Your task to perform on an android device: change text size in settings app Image 0: 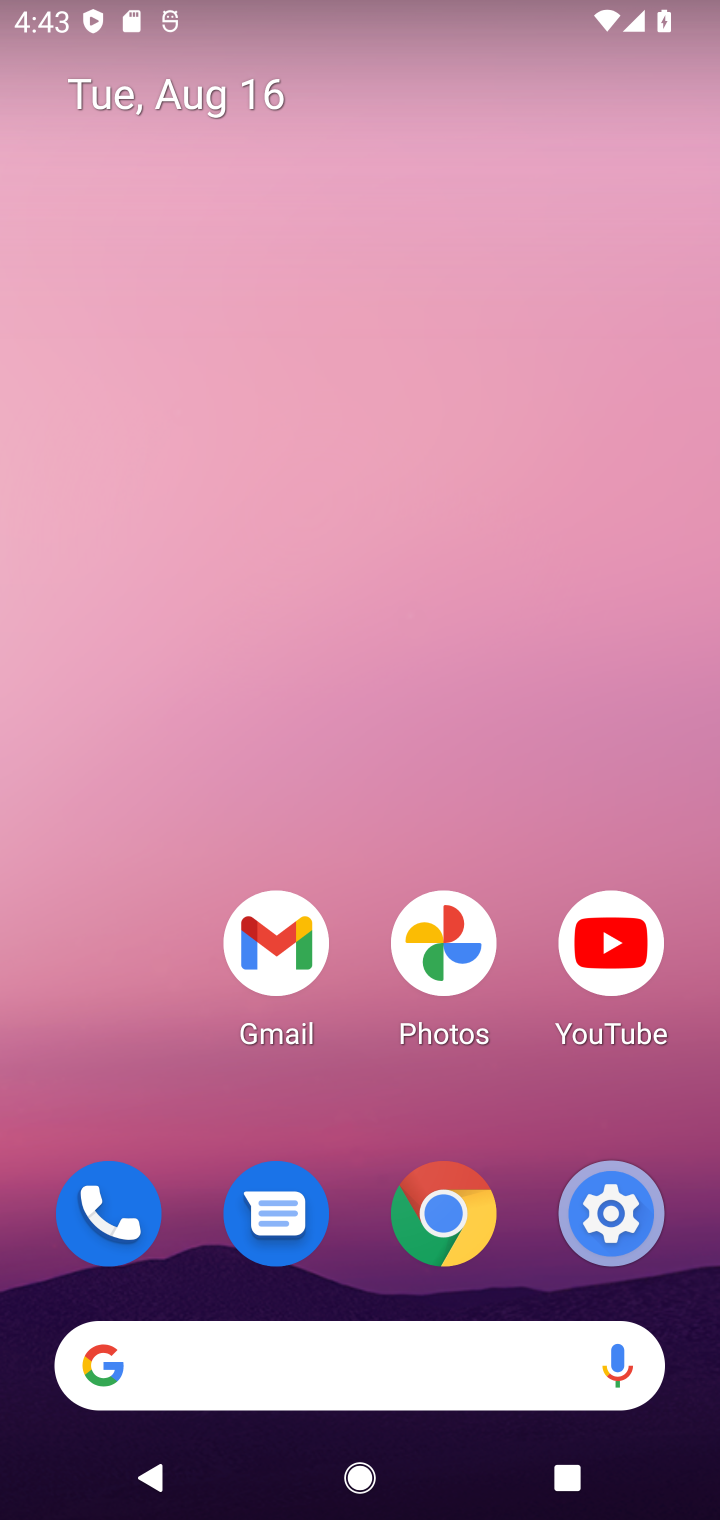
Step 0: drag from (364, 1106) to (319, 8)
Your task to perform on an android device: change text size in settings app Image 1: 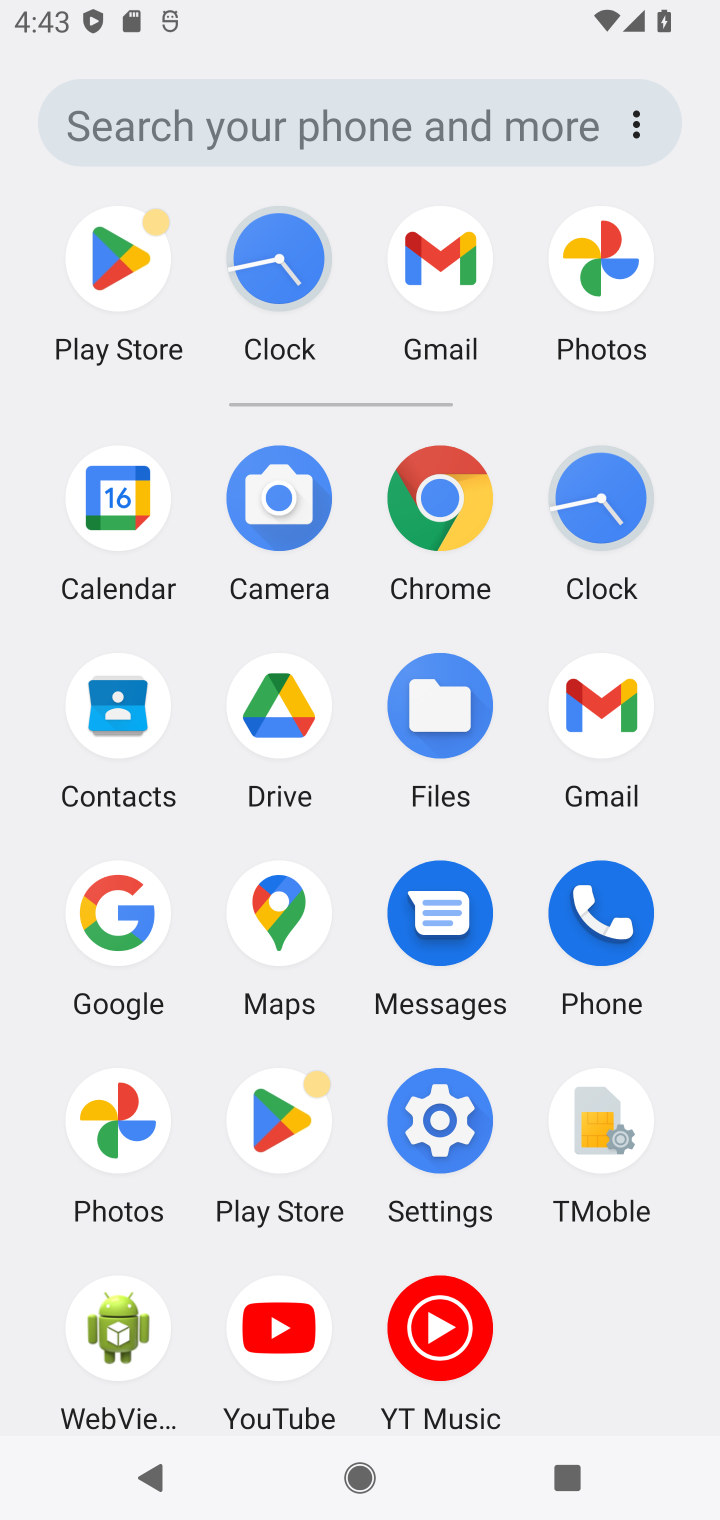
Step 1: click (452, 1097)
Your task to perform on an android device: change text size in settings app Image 2: 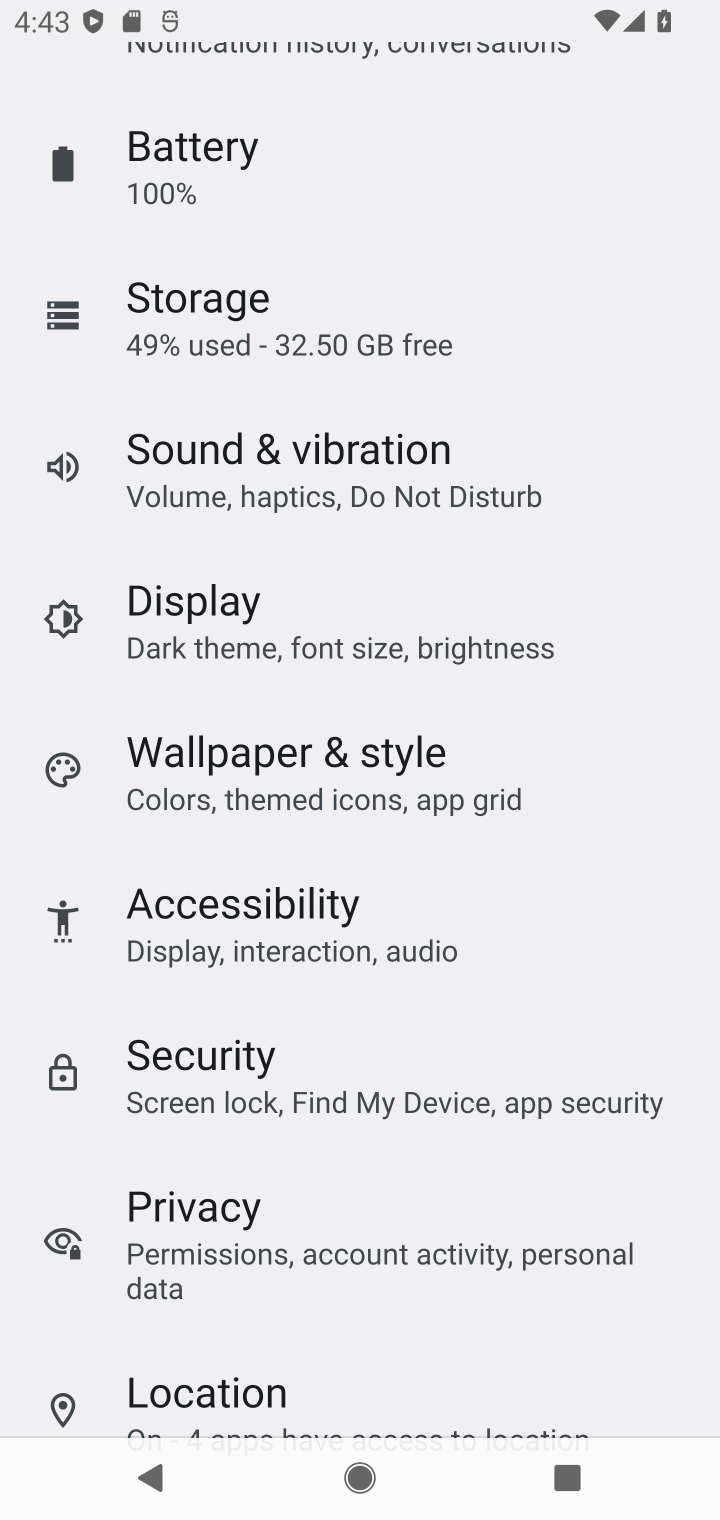
Step 2: click (228, 638)
Your task to perform on an android device: change text size in settings app Image 3: 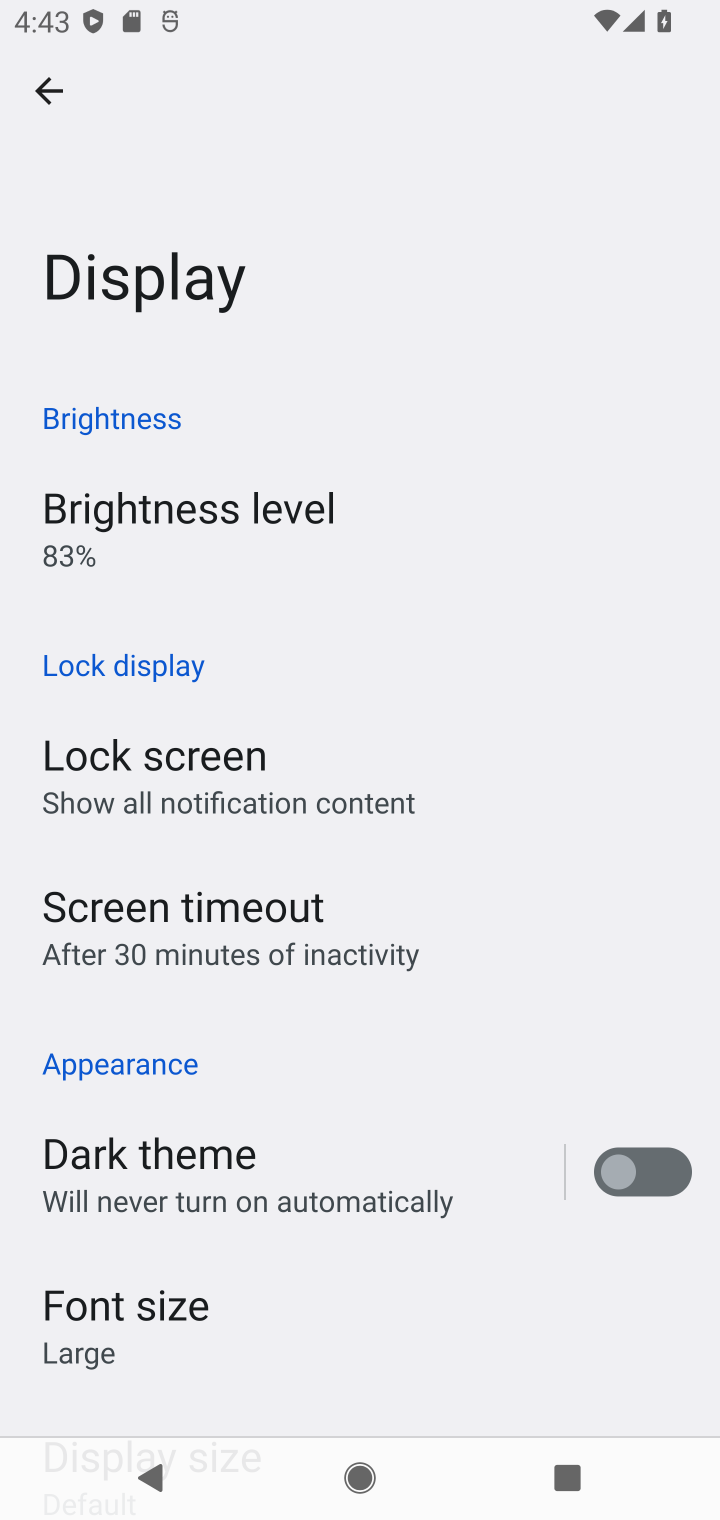
Step 3: click (146, 1312)
Your task to perform on an android device: change text size in settings app Image 4: 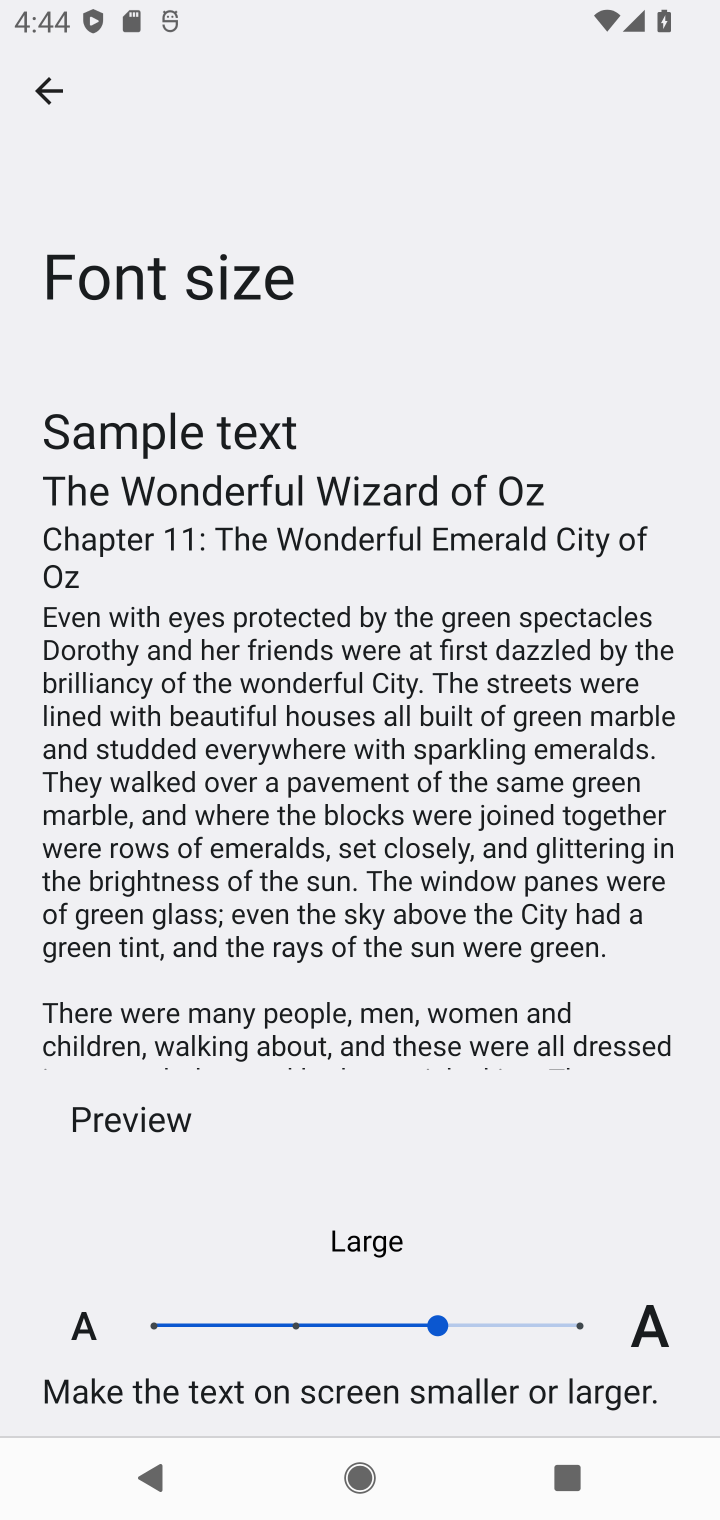
Step 4: click (285, 1313)
Your task to perform on an android device: change text size in settings app Image 5: 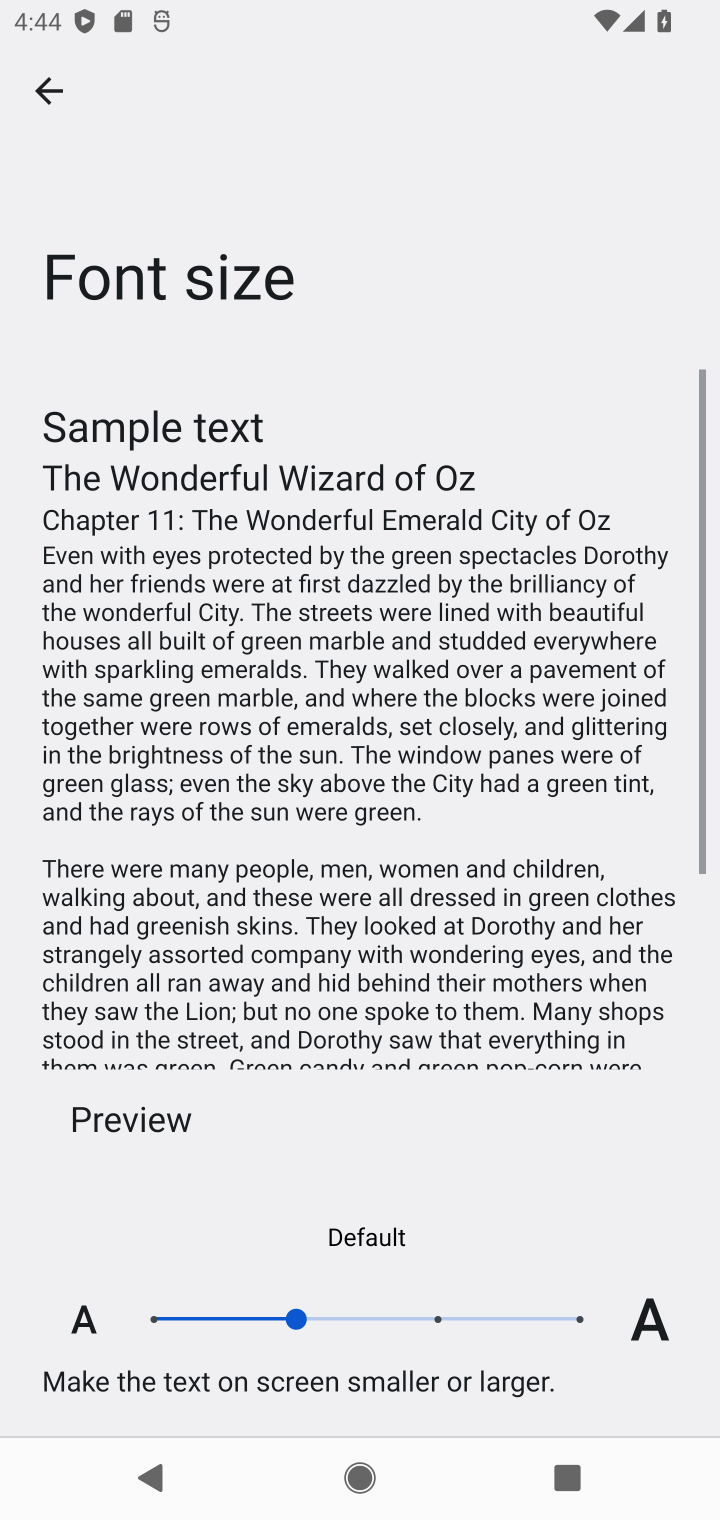
Step 5: task complete